Your task to perform on an android device: Search for Italian restaurants on Maps Image 0: 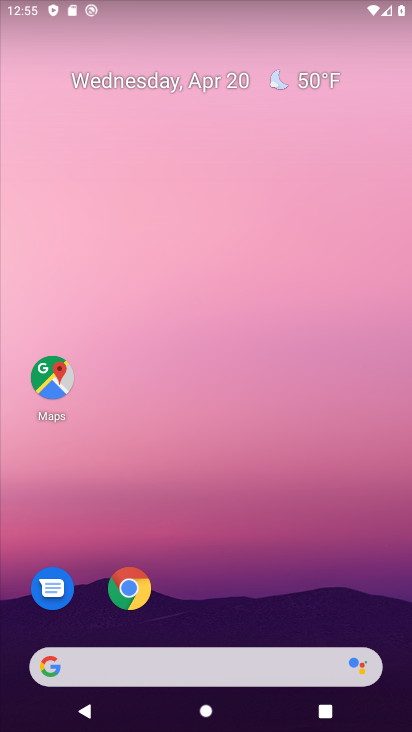
Step 0: drag from (169, 651) to (168, 293)
Your task to perform on an android device: Search for Italian restaurants on Maps Image 1: 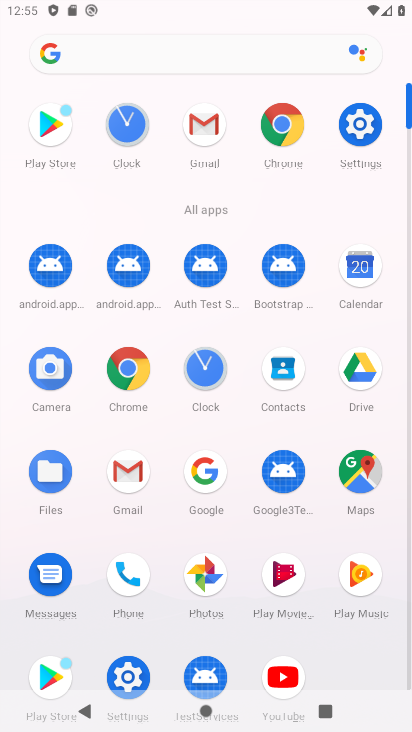
Step 1: click (356, 482)
Your task to perform on an android device: Search for Italian restaurants on Maps Image 2: 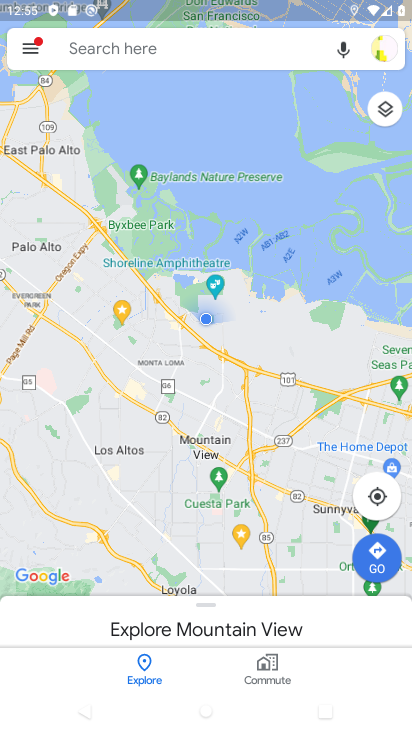
Step 2: click (168, 51)
Your task to perform on an android device: Search for Italian restaurants on Maps Image 3: 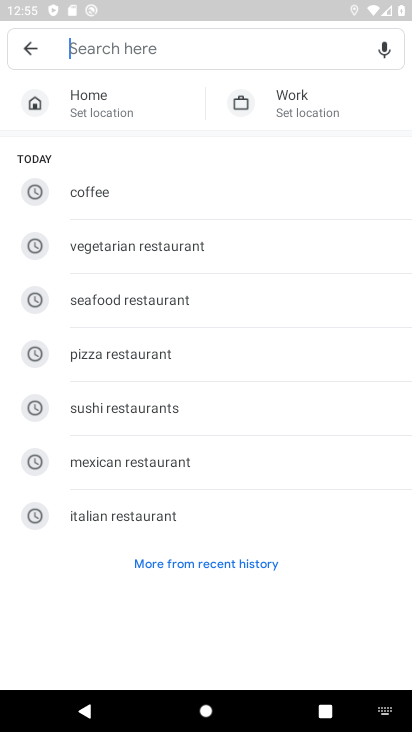
Step 3: click (103, 520)
Your task to perform on an android device: Search for Italian restaurants on Maps Image 4: 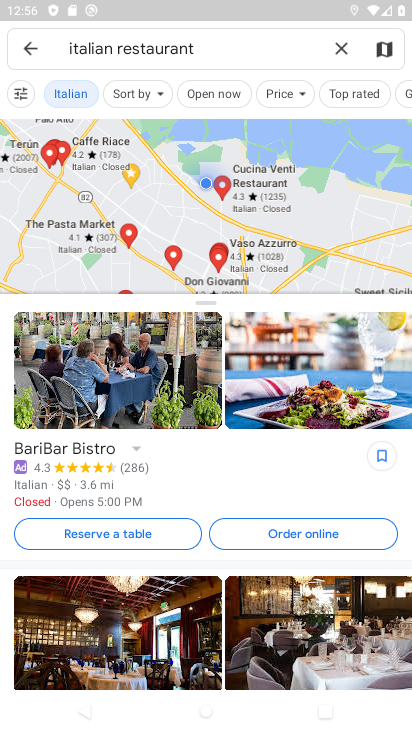
Step 4: task complete